Your task to perform on an android device: check the backup settings in the google photos Image 0: 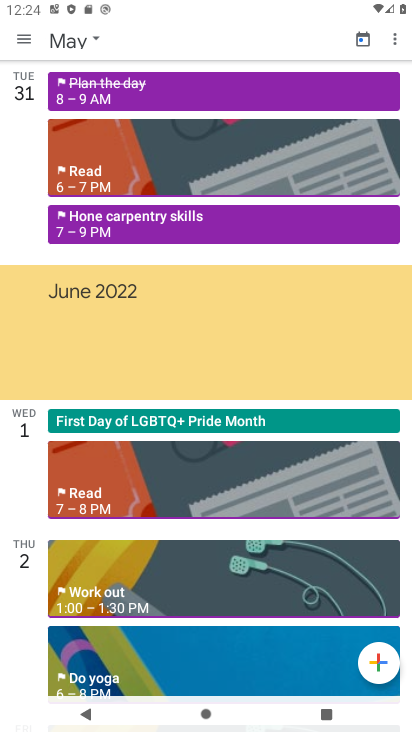
Step 0: press home button
Your task to perform on an android device: check the backup settings in the google photos Image 1: 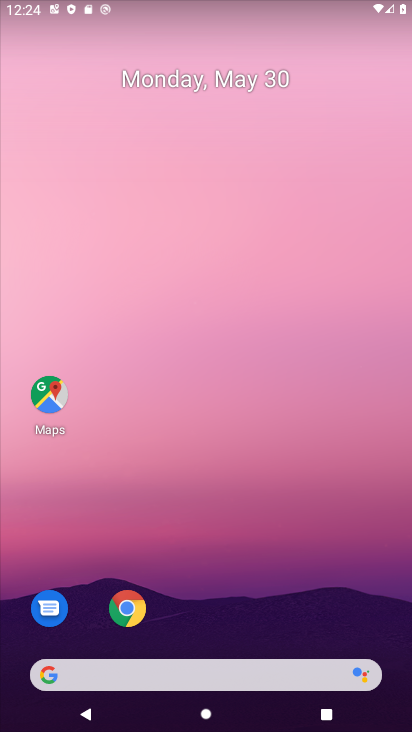
Step 1: drag from (219, 555) to (249, 34)
Your task to perform on an android device: check the backup settings in the google photos Image 2: 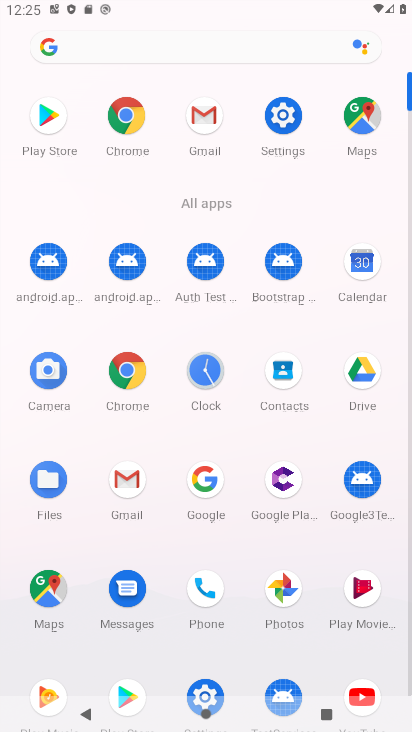
Step 2: click (291, 581)
Your task to perform on an android device: check the backup settings in the google photos Image 3: 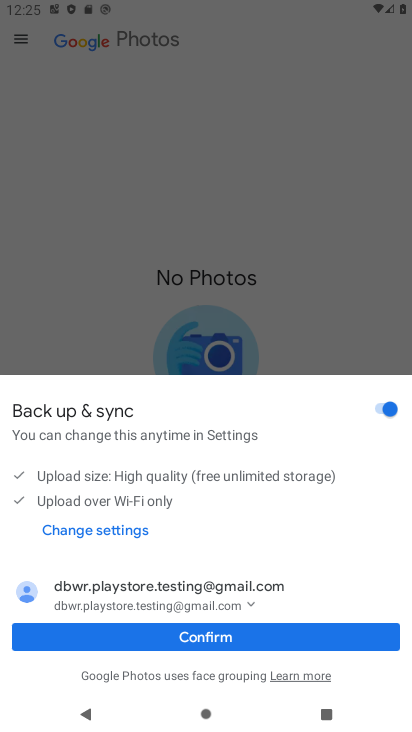
Step 3: click (275, 631)
Your task to perform on an android device: check the backup settings in the google photos Image 4: 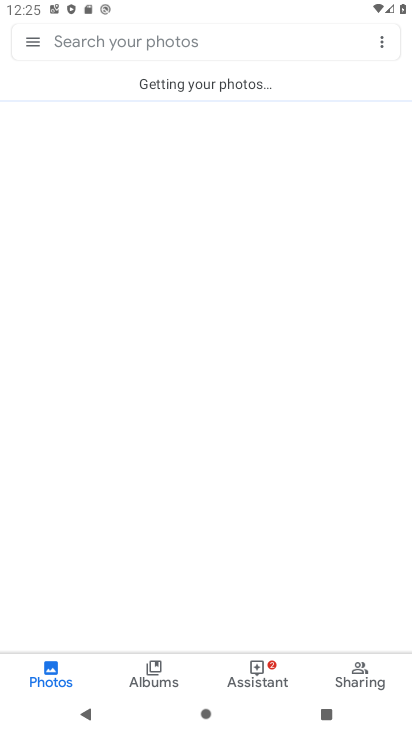
Step 4: click (44, 42)
Your task to perform on an android device: check the backup settings in the google photos Image 5: 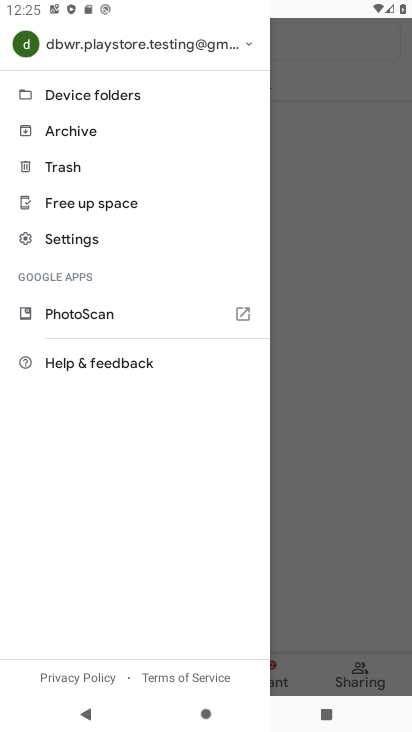
Step 5: click (56, 234)
Your task to perform on an android device: check the backup settings in the google photos Image 6: 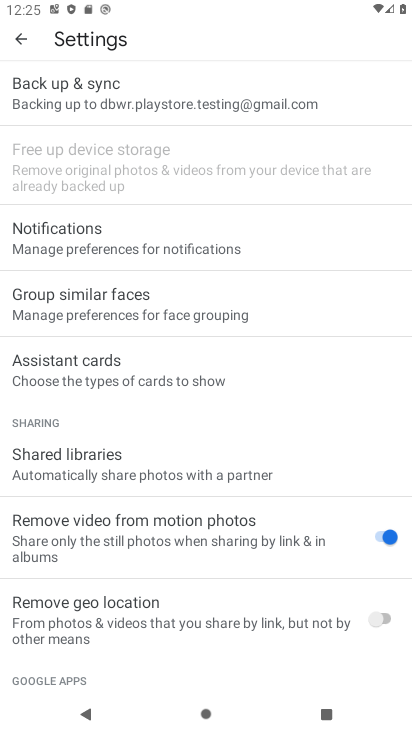
Step 6: click (151, 95)
Your task to perform on an android device: check the backup settings in the google photos Image 7: 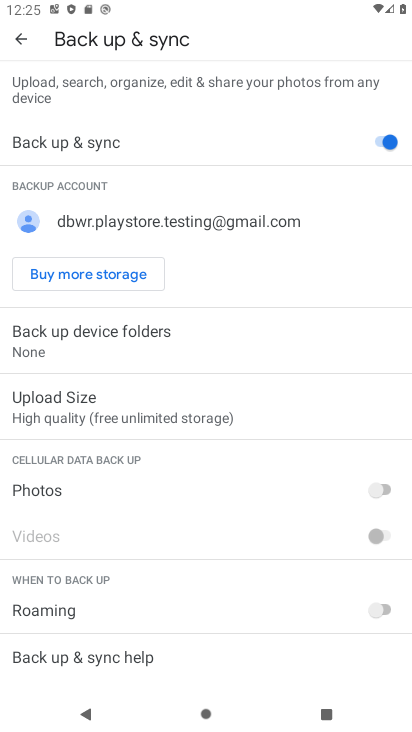
Step 7: task complete